Your task to perform on an android device: Go to eBay Image 0: 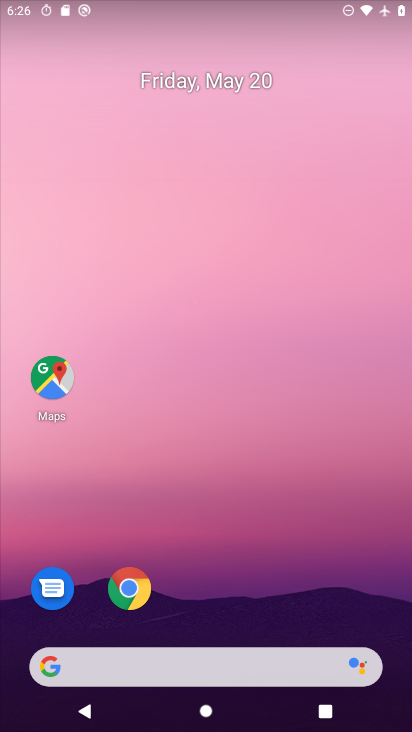
Step 0: click (144, 600)
Your task to perform on an android device: Go to eBay Image 1: 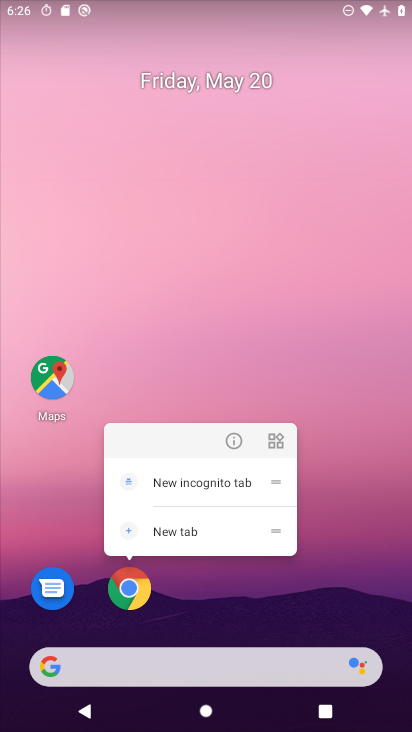
Step 1: click (137, 601)
Your task to perform on an android device: Go to eBay Image 2: 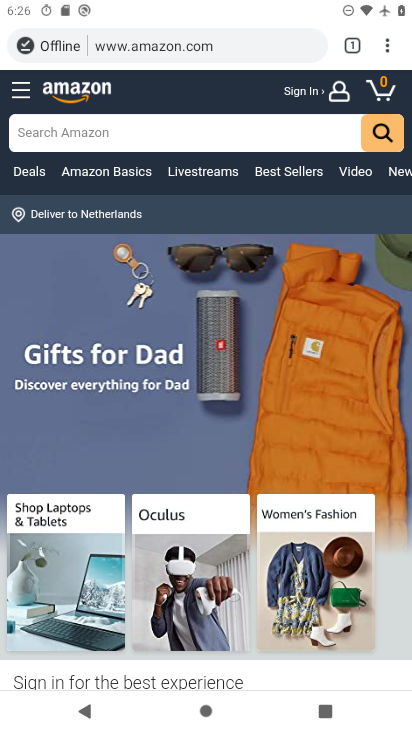
Step 2: click (153, 49)
Your task to perform on an android device: Go to eBay Image 3: 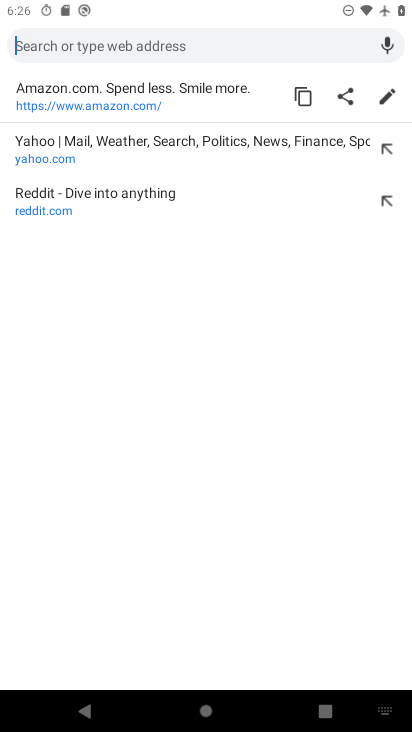
Step 3: task complete